Your task to perform on an android device: Search for the new nike air max shoes on Nike. Image 0: 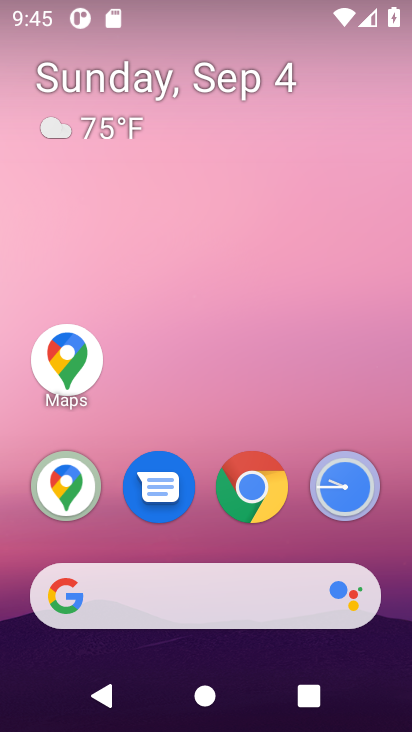
Step 0: click (256, 490)
Your task to perform on an android device: Search for the new nike air max shoes on Nike. Image 1: 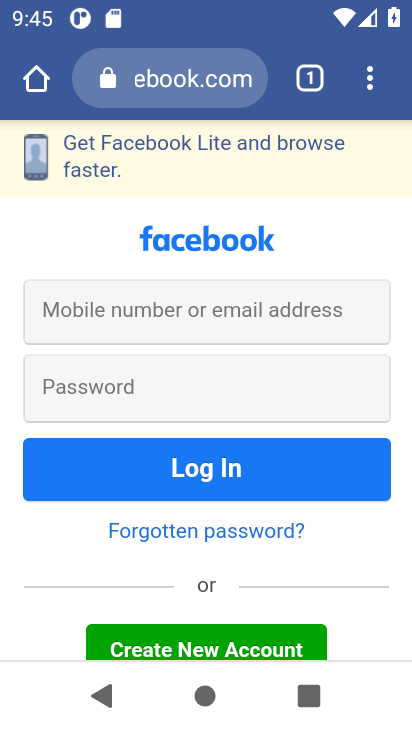
Step 1: click (224, 636)
Your task to perform on an android device: Search for the new nike air max shoes on Nike. Image 2: 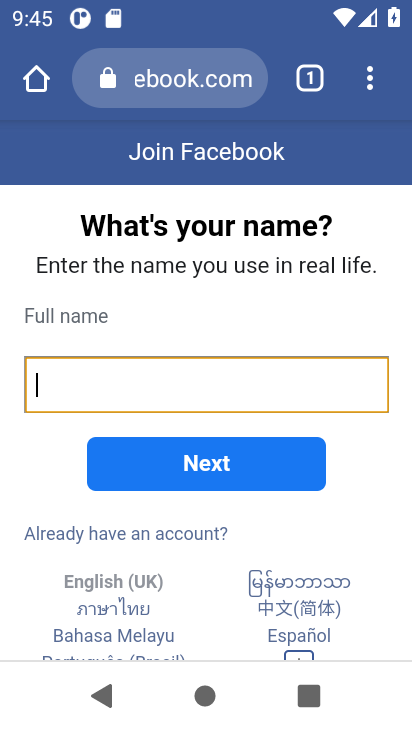
Step 2: task complete